Your task to perform on an android device: Check the news Image 0: 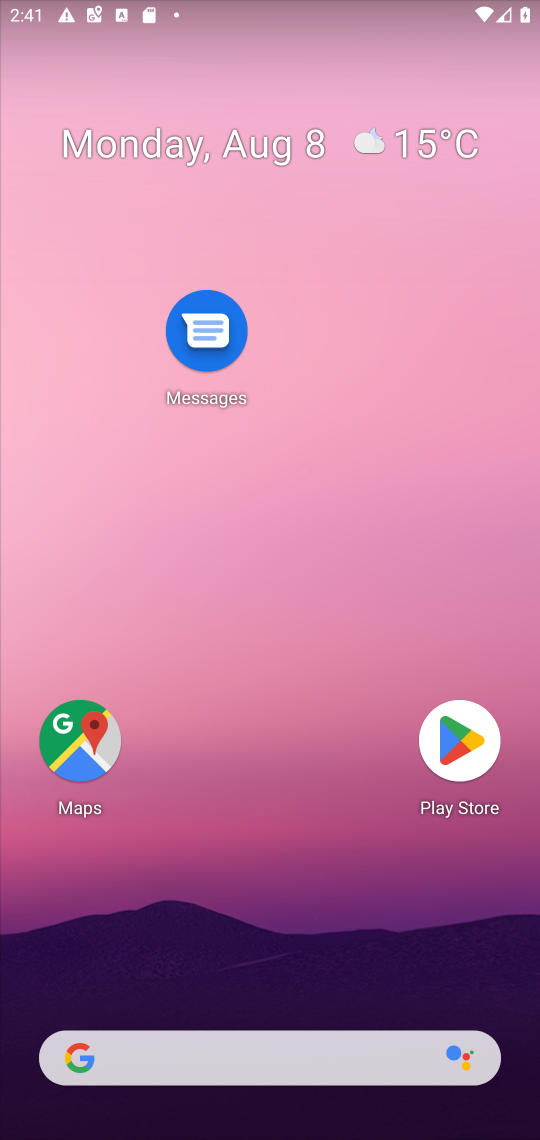
Step 0: click (428, 9)
Your task to perform on an android device: Check the news Image 1: 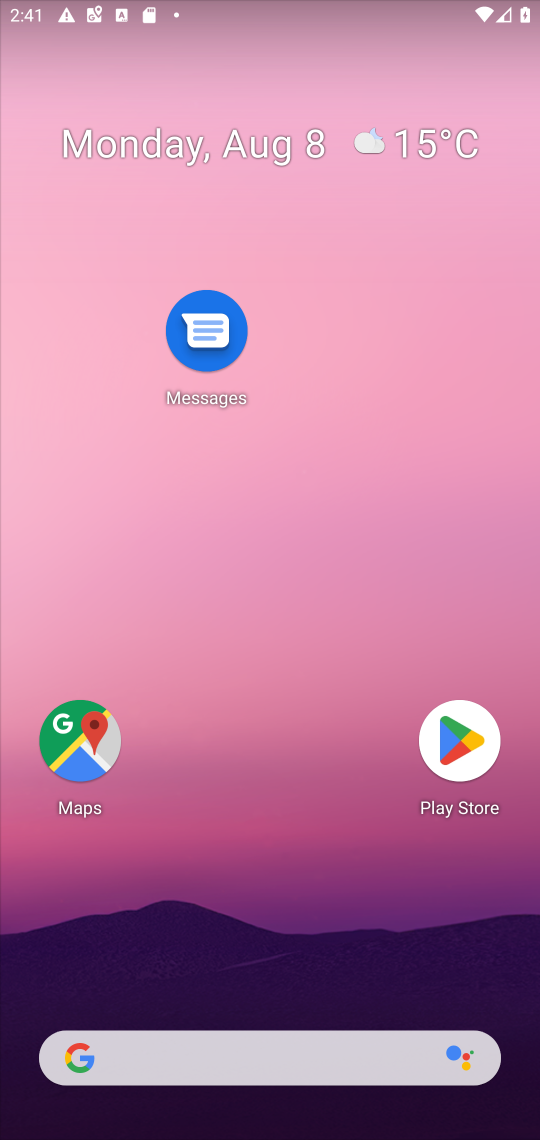
Step 1: drag from (265, 1049) to (252, 227)
Your task to perform on an android device: Check the news Image 2: 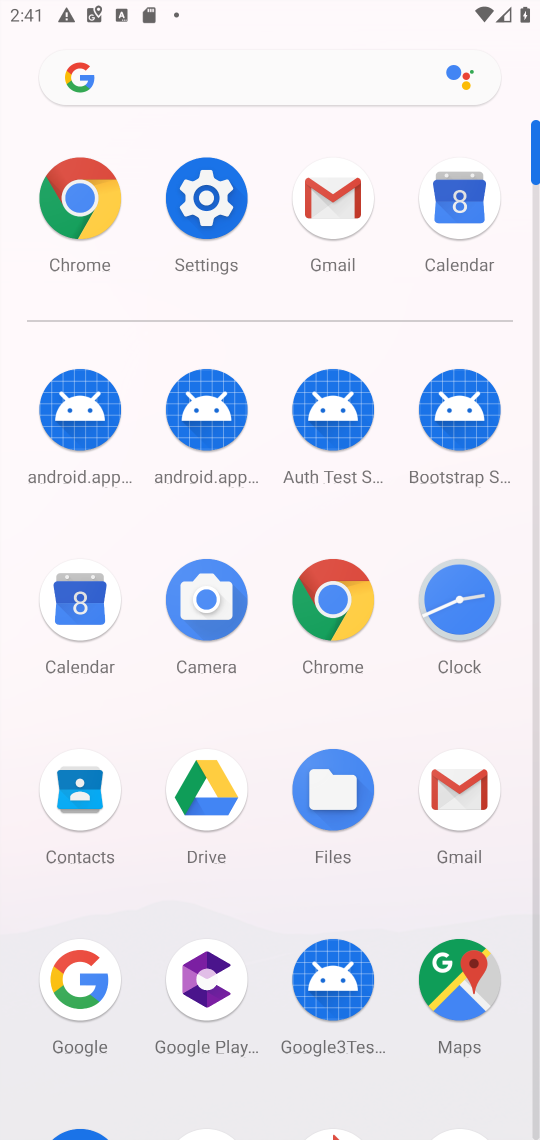
Step 2: click (332, 586)
Your task to perform on an android device: Check the news Image 3: 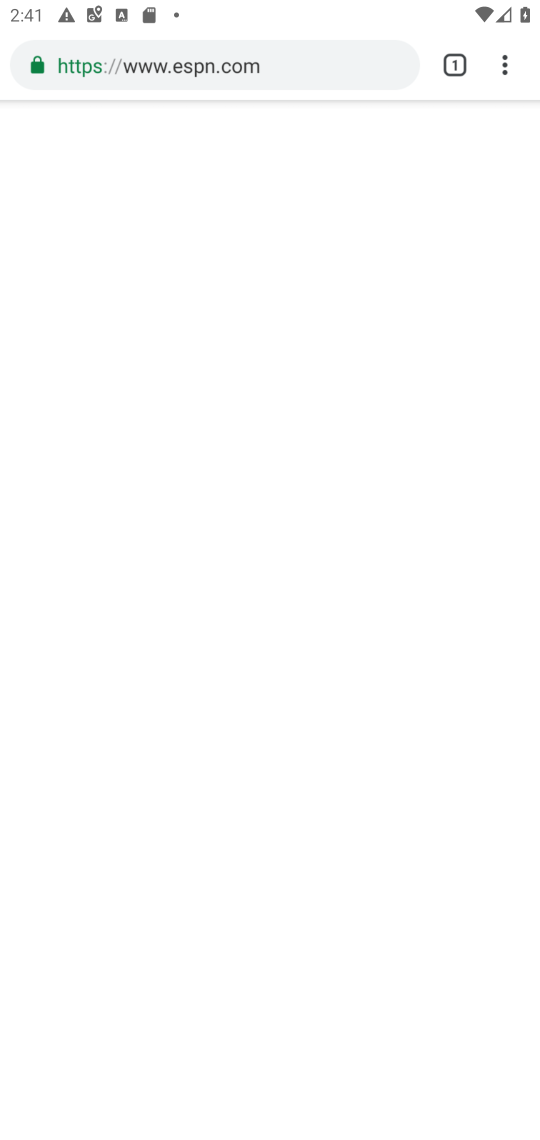
Step 3: click (269, 67)
Your task to perform on an android device: Check the news Image 4: 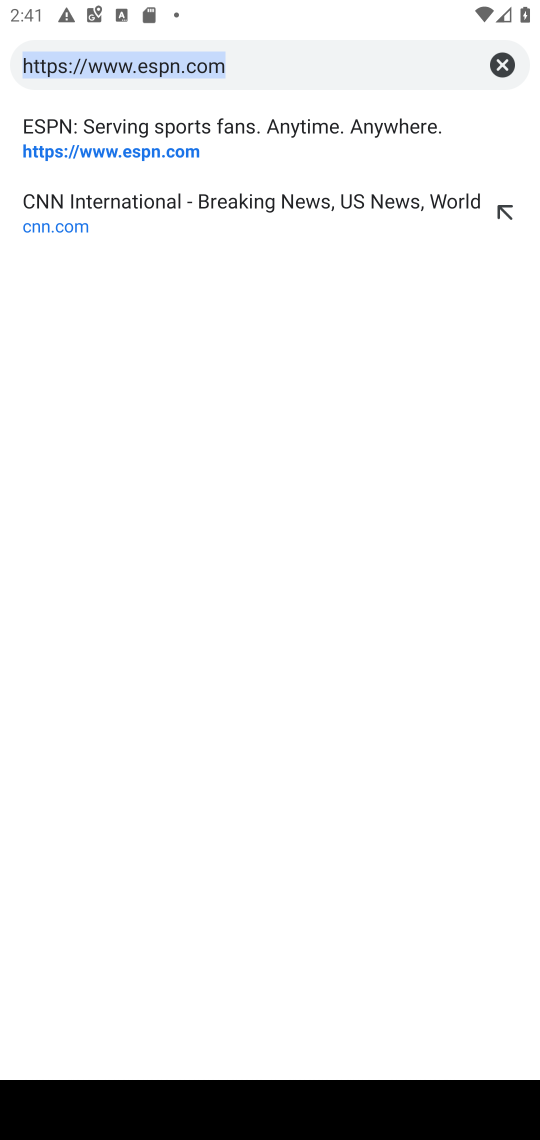
Step 4: type "check the news"
Your task to perform on an android device: Check the news Image 5: 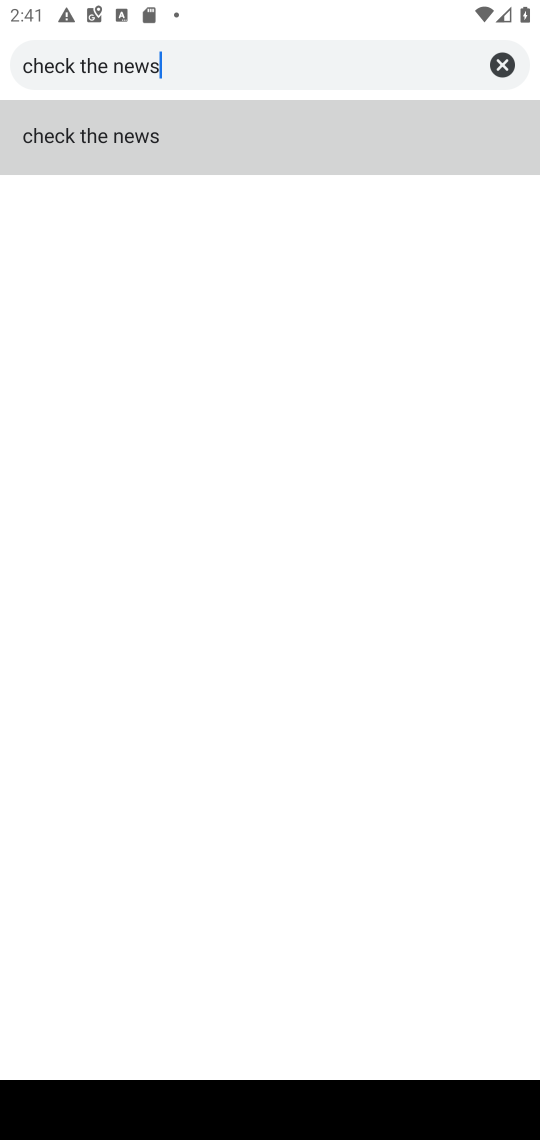
Step 5: click (236, 148)
Your task to perform on an android device: Check the news Image 6: 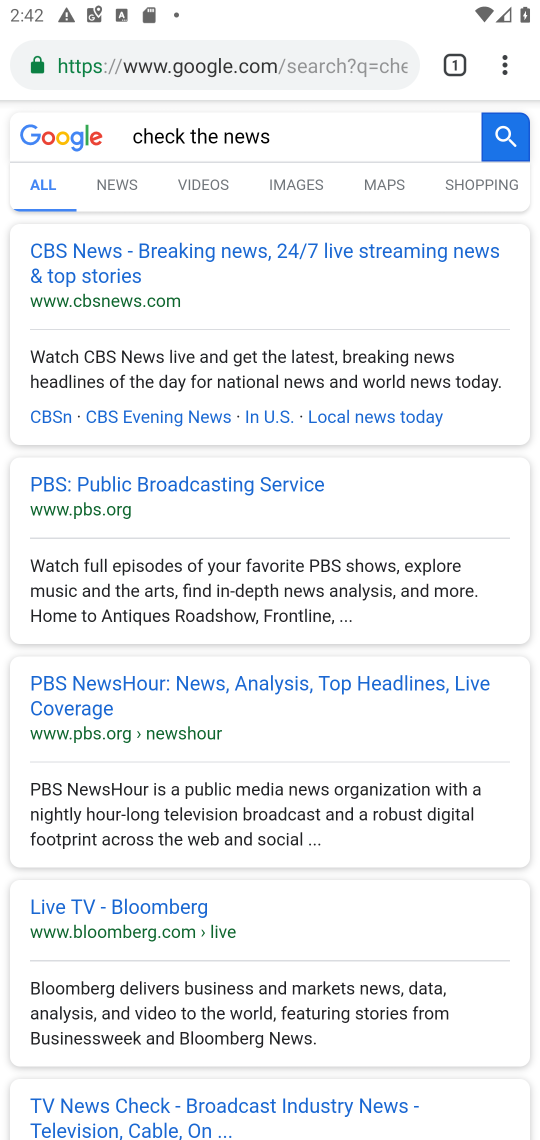
Step 6: task complete